Your task to perform on an android device: Open Yahoo.com Image 0: 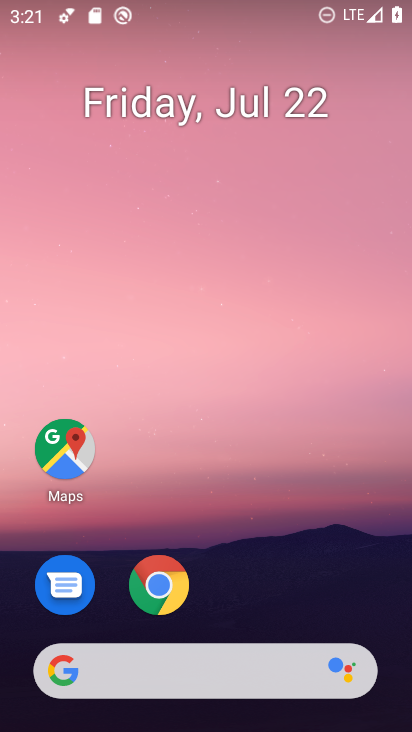
Step 0: click (217, 675)
Your task to perform on an android device: Open Yahoo.com Image 1: 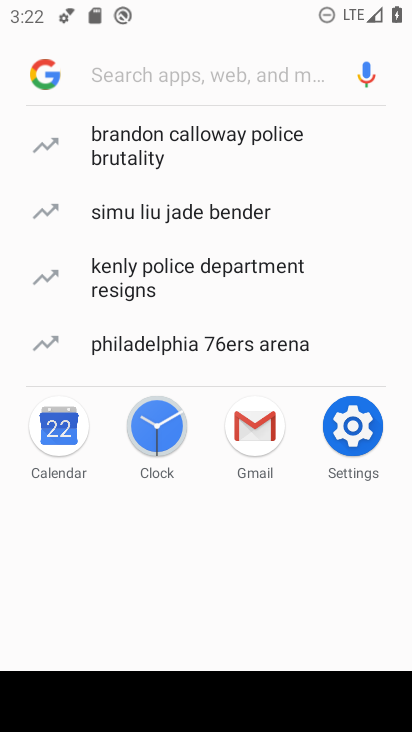
Step 1: type "yahoo.com"
Your task to perform on an android device: Open Yahoo.com Image 2: 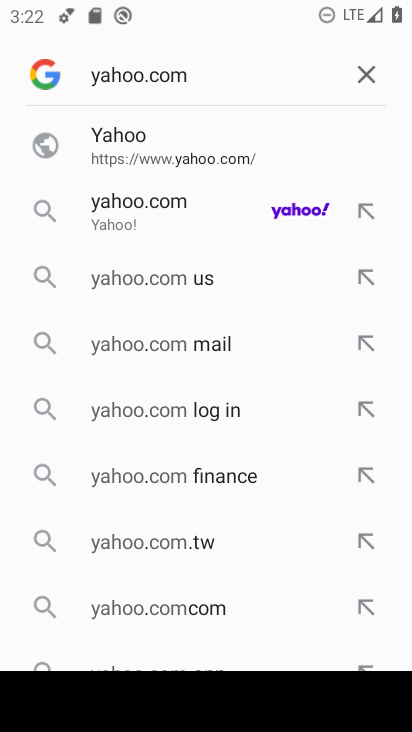
Step 2: click (309, 213)
Your task to perform on an android device: Open Yahoo.com Image 3: 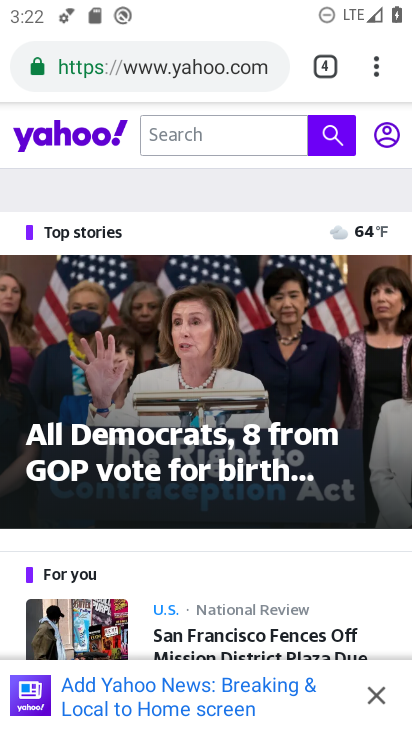
Step 3: task complete